Your task to perform on an android device: Search for pizza restaurants on Maps Image 0: 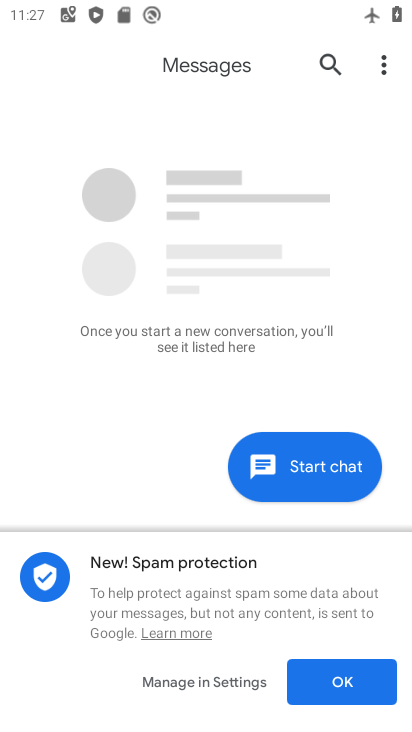
Step 0: press home button
Your task to perform on an android device: Search for pizza restaurants on Maps Image 1: 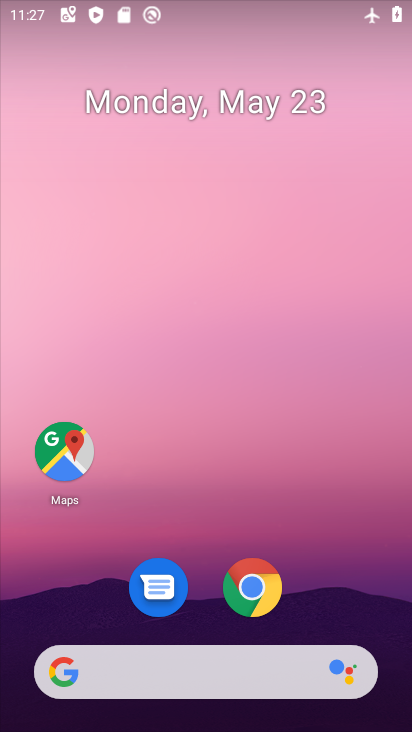
Step 1: click (72, 448)
Your task to perform on an android device: Search for pizza restaurants on Maps Image 2: 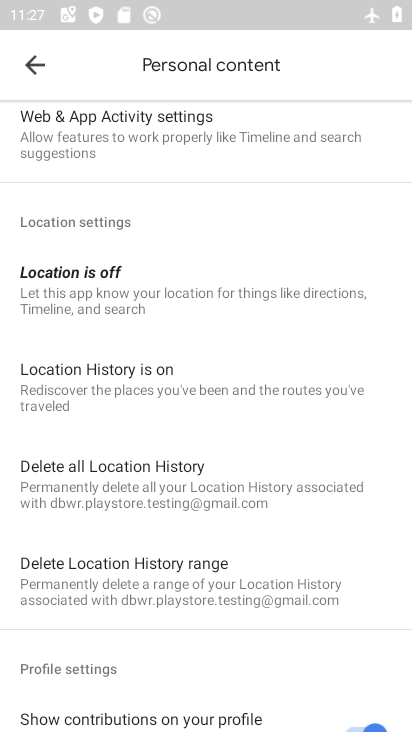
Step 2: click (30, 63)
Your task to perform on an android device: Search for pizza restaurants on Maps Image 3: 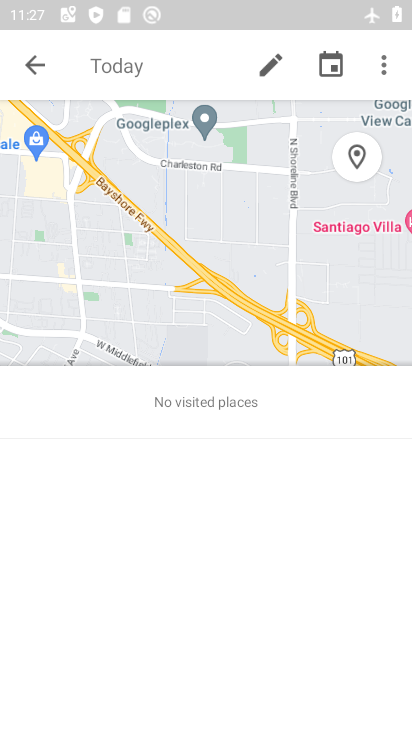
Step 3: click (30, 63)
Your task to perform on an android device: Search for pizza restaurants on Maps Image 4: 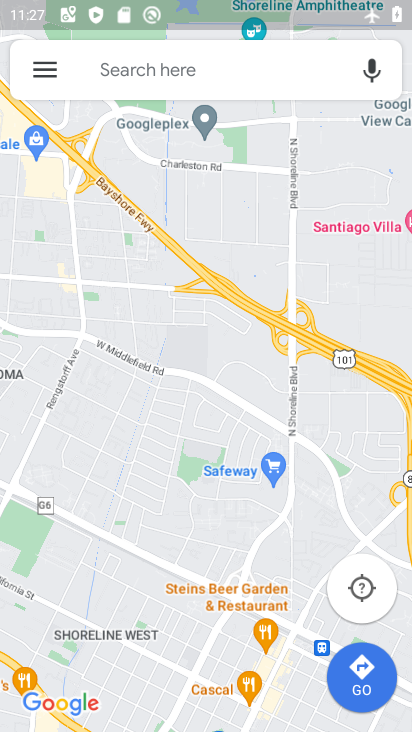
Step 4: click (122, 72)
Your task to perform on an android device: Search for pizza restaurants on Maps Image 5: 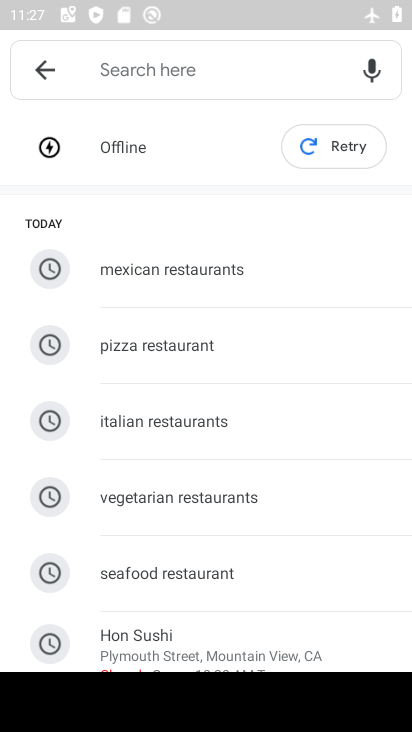
Step 5: click (166, 343)
Your task to perform on an android device: Search for pizza restaurants on Maps Image 6: 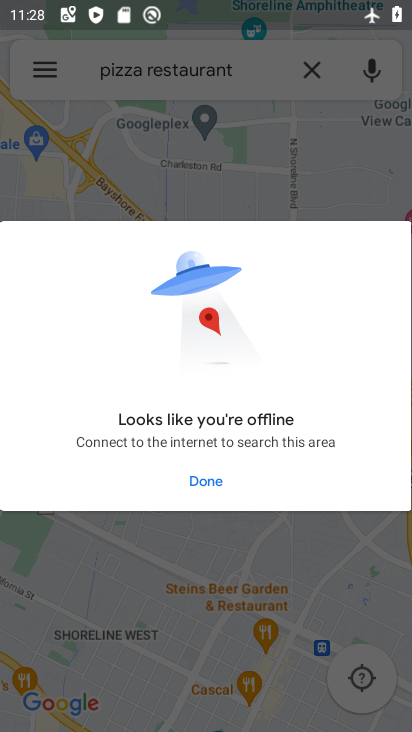
Step 6: task complete